Your task to perform on an android device: check the backup settings in the google photos Image 0: 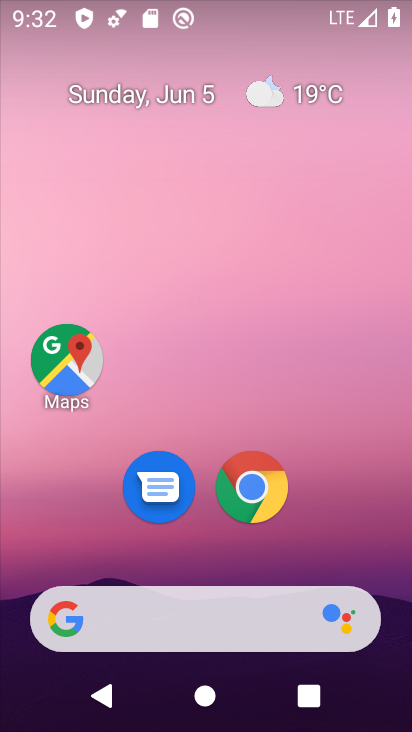
Step 0: drag from (104, 581) to (202, 57)
Your task to perform on an android device: check the backup settings in the google photos Image 1: 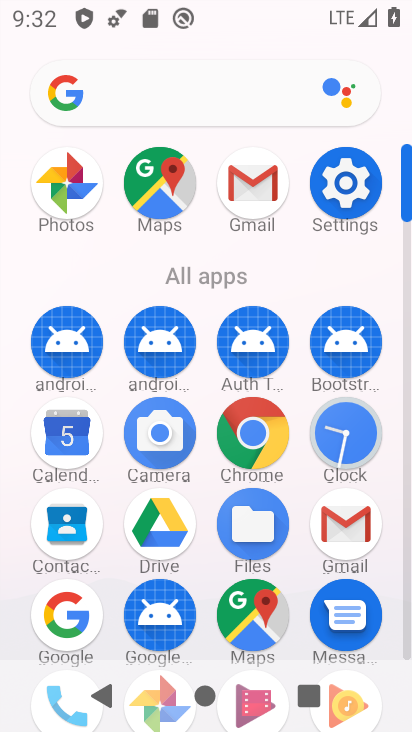
Step 1: drag from (221, 555) to (261, 360)
Your task to perform on an android device: check the backup settings in the google photos Image 2: 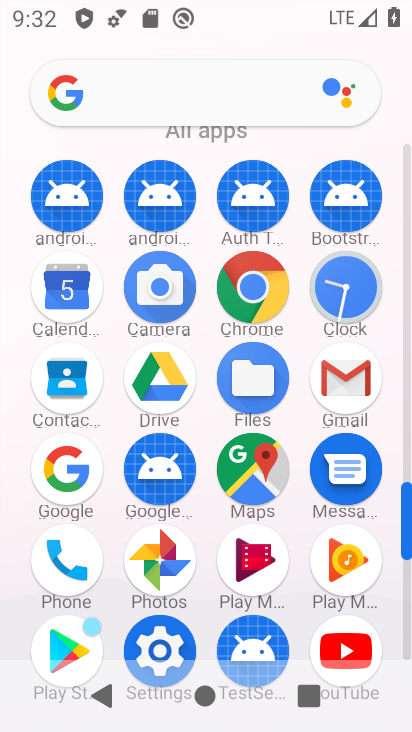
Step 2: click (176, 576)
Your task to perform on an android device: check the backup settings in the google photos Image 3: 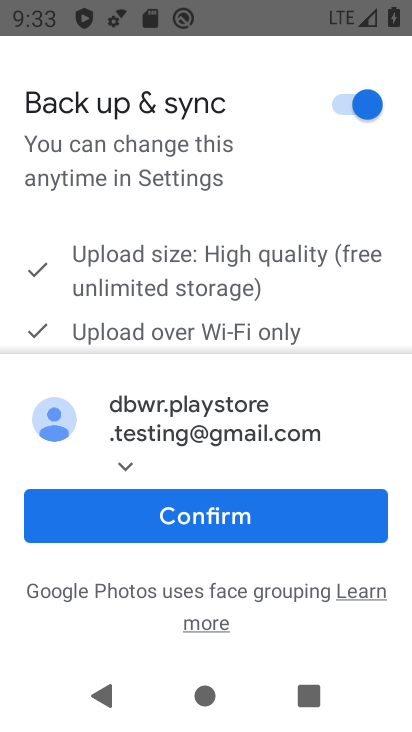
Step 3: click (243, 517)
Your task to perform on an android device: check the backup settings in the google photos Image 4: 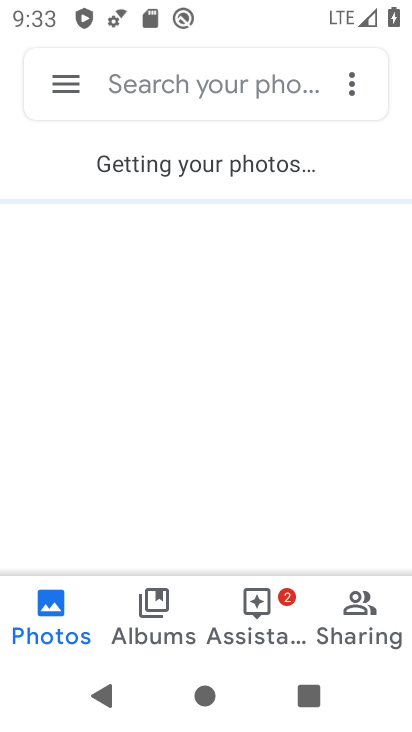
Step 4: click (51, 84)
Your task to perform on an android device: check the backup settings in the google photos Image 5: 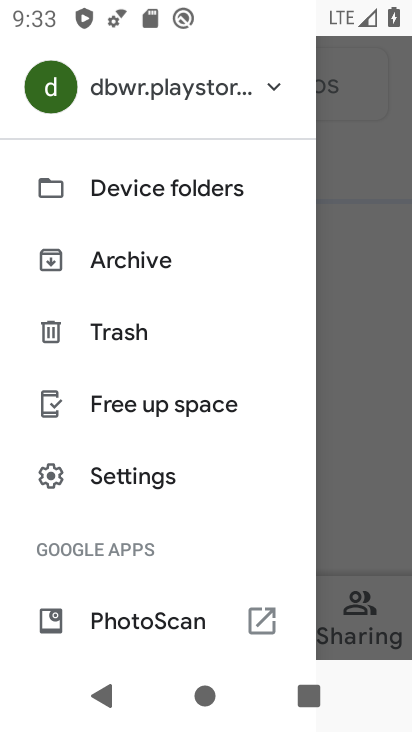
Step 5: click (128, 488)
Your task to perform on an android device: check the backup settings in the google photos Image 6: 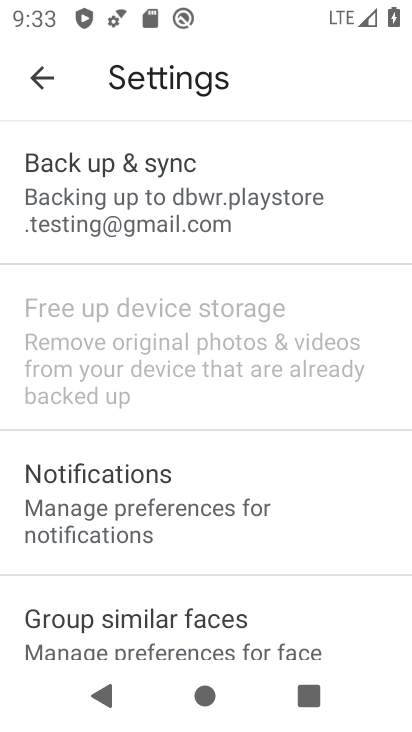
Step 6: click (133, 208)
Your task to perform on an android device: check the backup settings in the google photos Image 7: 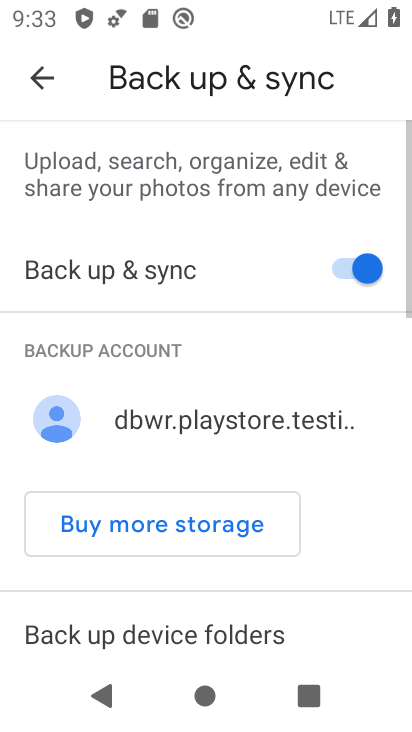
Step 7: task complete